Your task to perform on an android device: What's on my calendar today? Image 0: 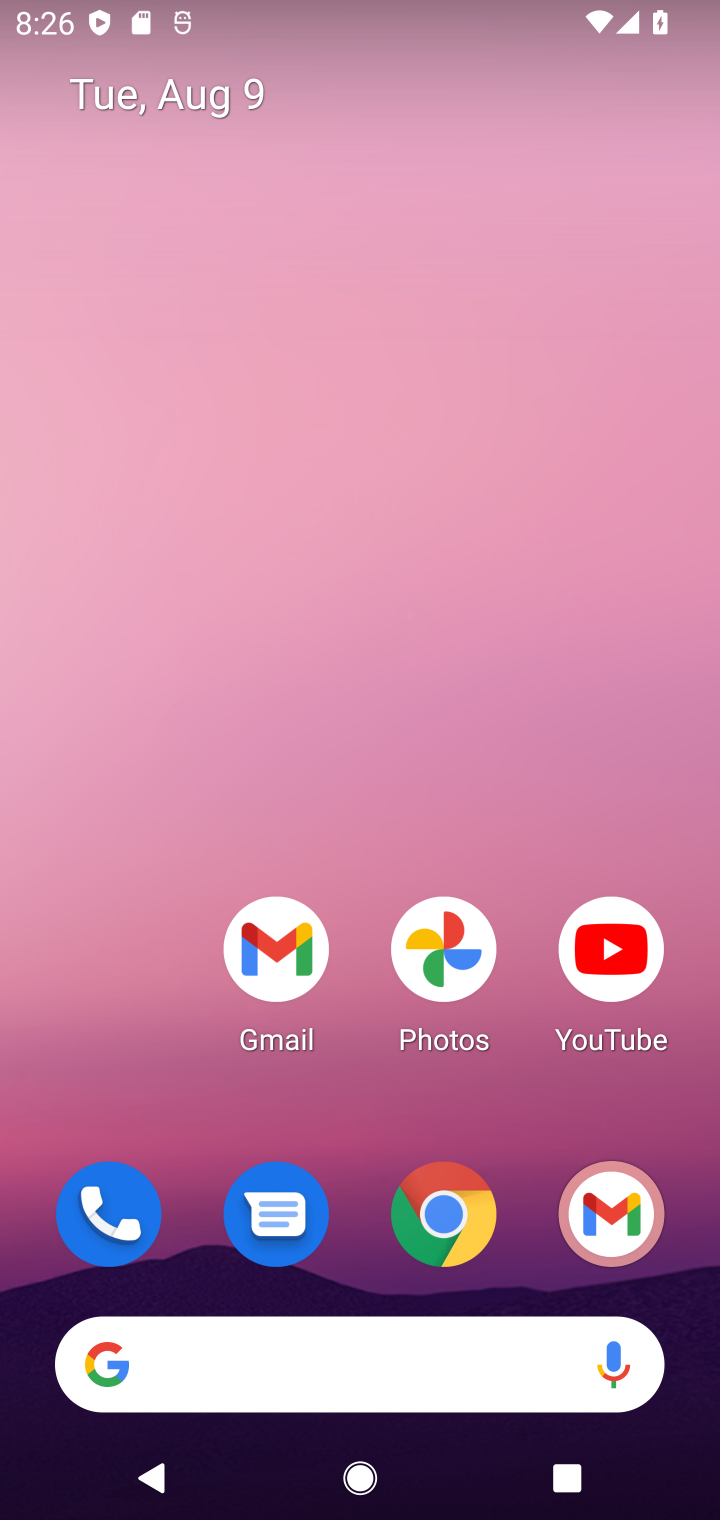
Step 0: drag from (139, 1357) to (513, 520)
Your task to perform on an android device: What's on my calendar today? Image 1: 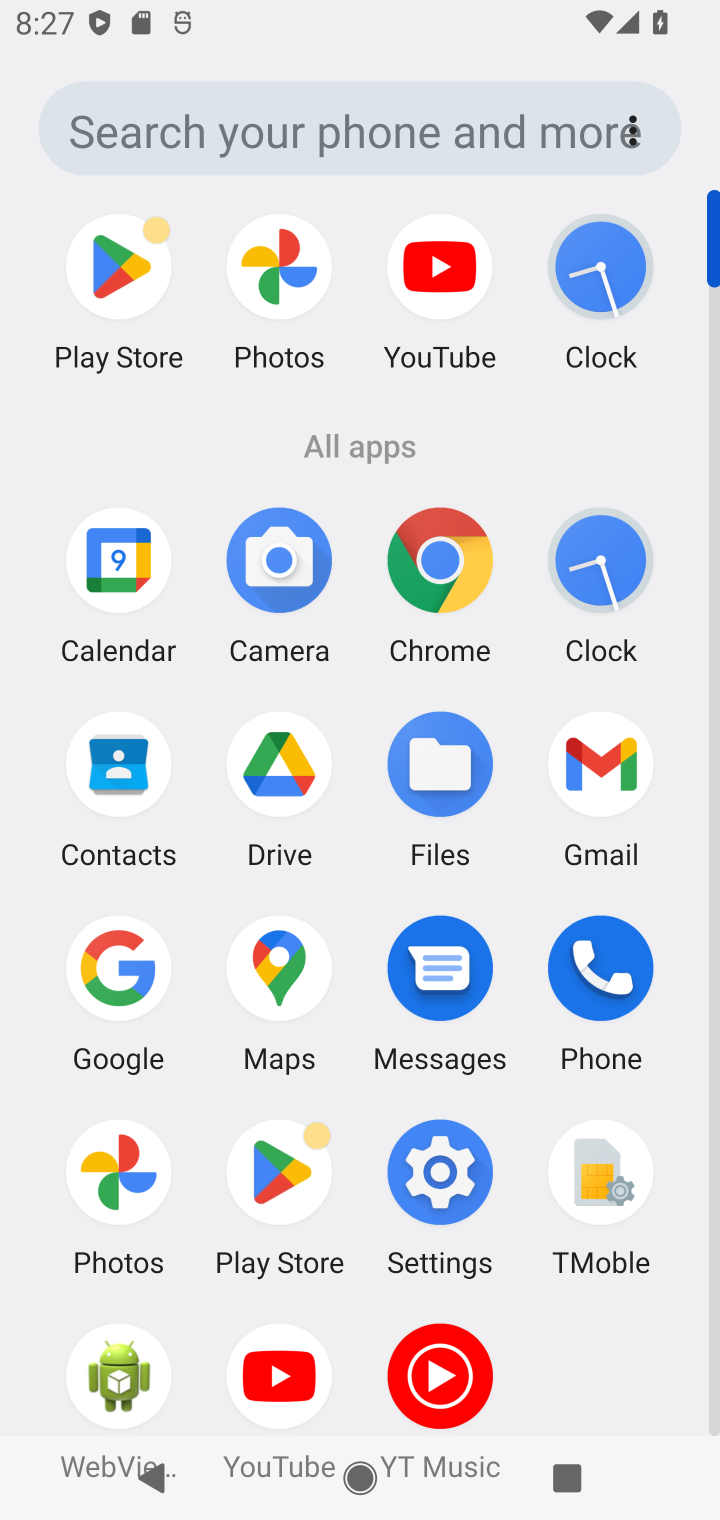
Step 1: click (134, 610)
Your task to perform on an android device: What's on my calendar today? Image 2: 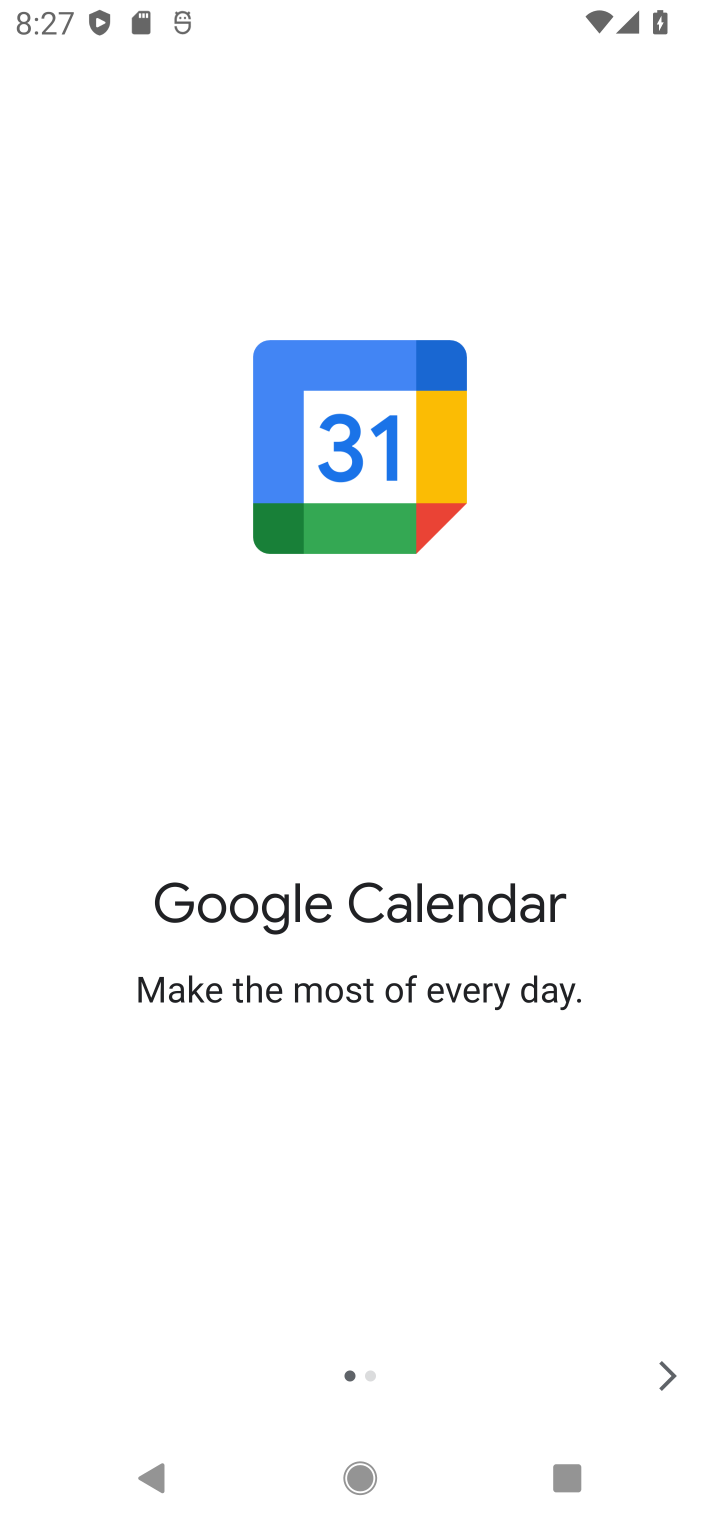
Step 2: click (668, 1343)
Your task to perform on an android device: What's on my calendar today? Image 3: 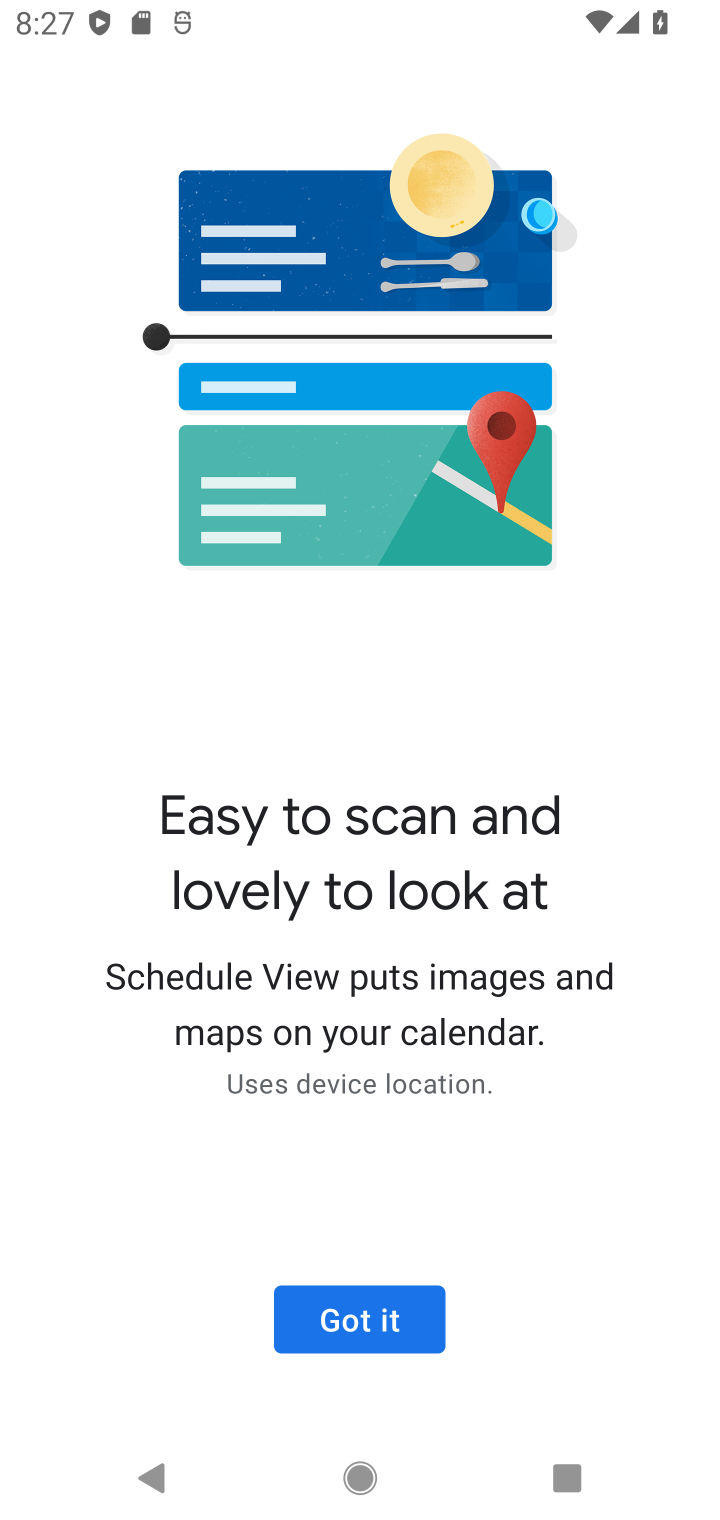
Step 3: click (681, 1356)
Your task to perform on an android device: What's on my calendar today? Image 4: 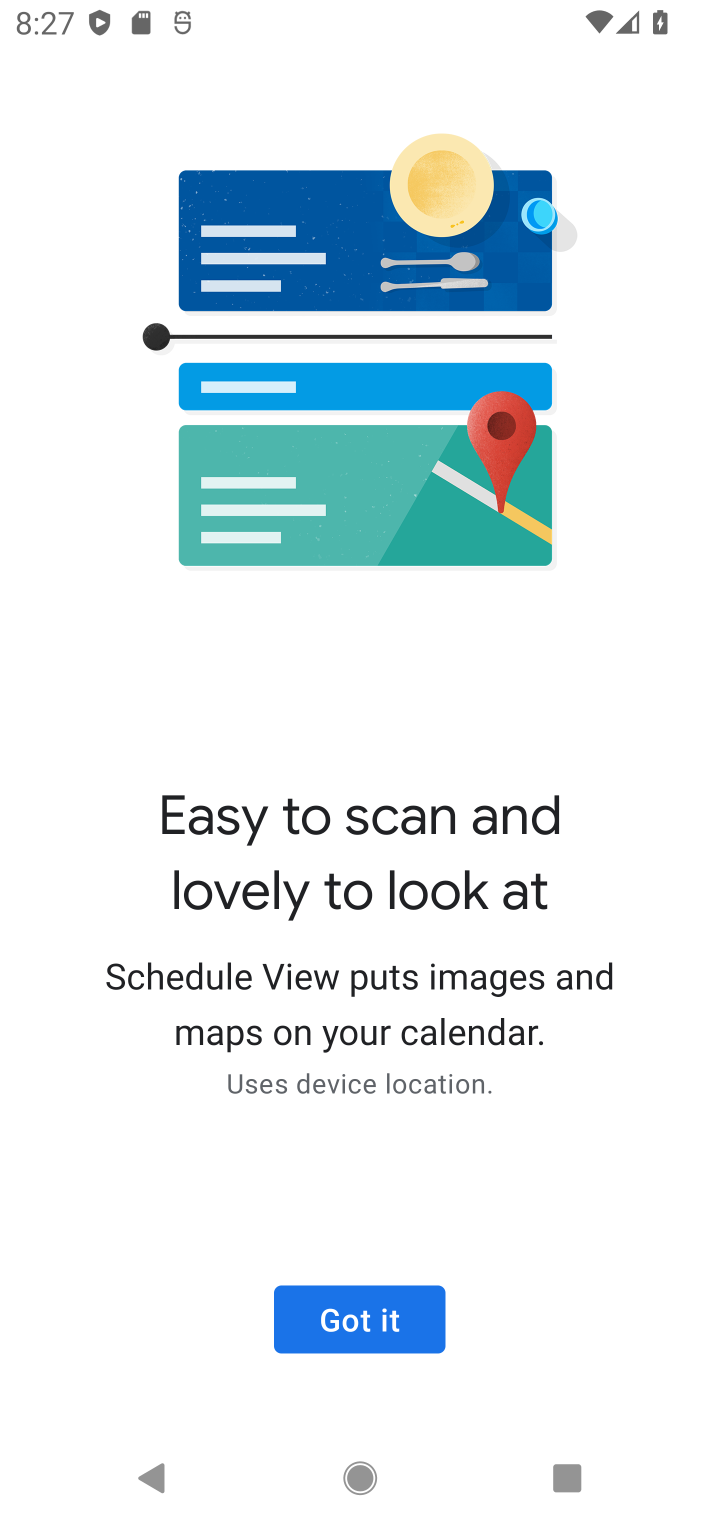
Step 4: click (373, 1309)
Your task to perform on an android device: What's on my calendar today? Image 5: 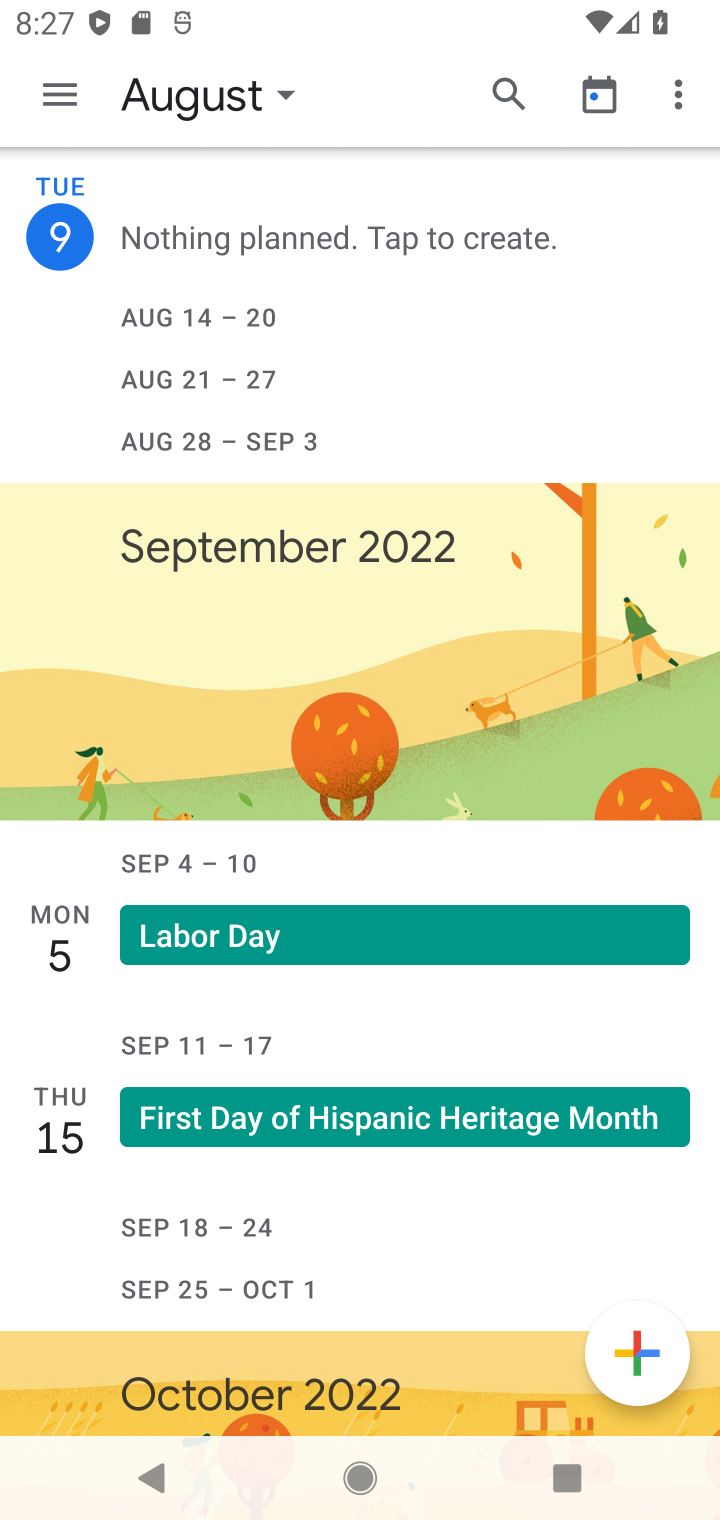
Step 5: click (273, 103)
Your task to perform on an android device: What's on my calendar today? Image 6: 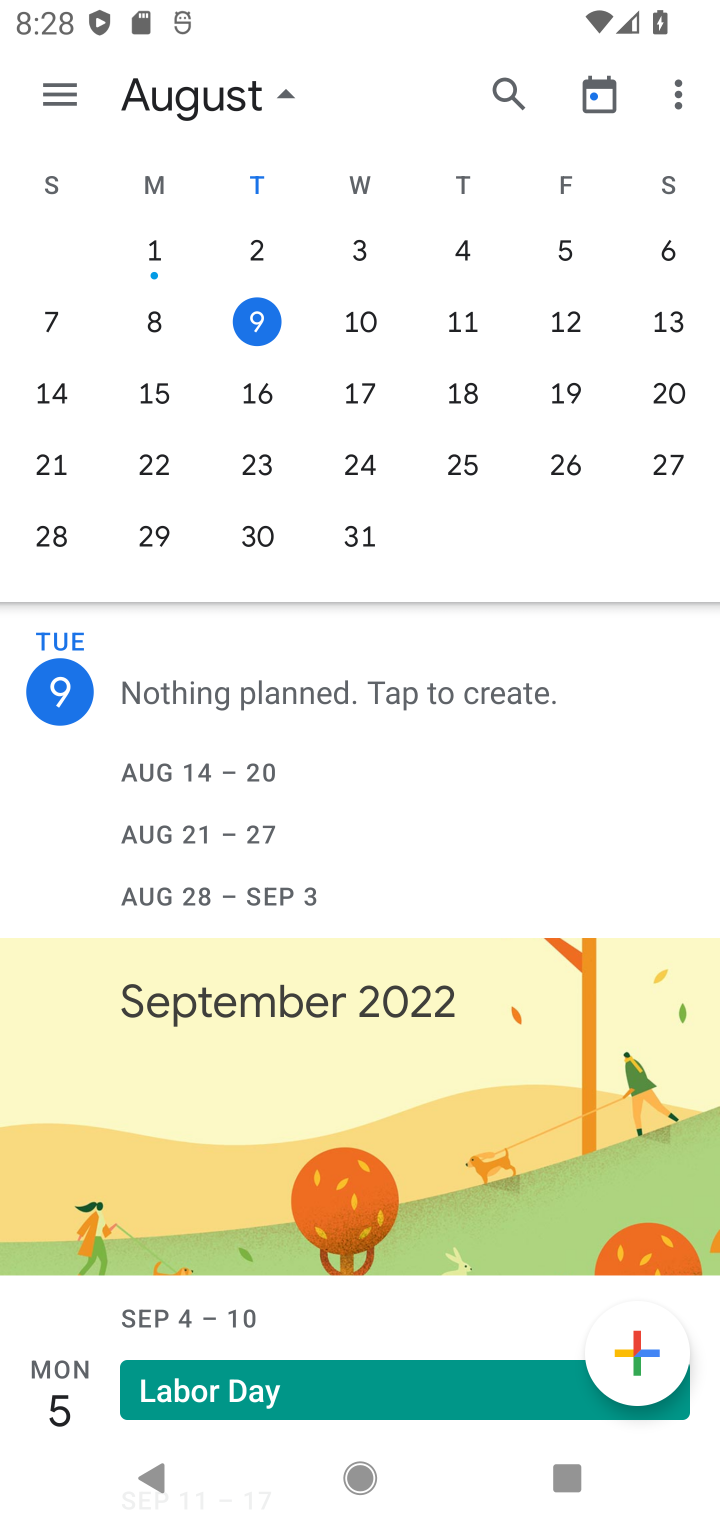
Step 6: task complete